Your task to perform on an android device: turn on the 12-hour format for clock Image 0: 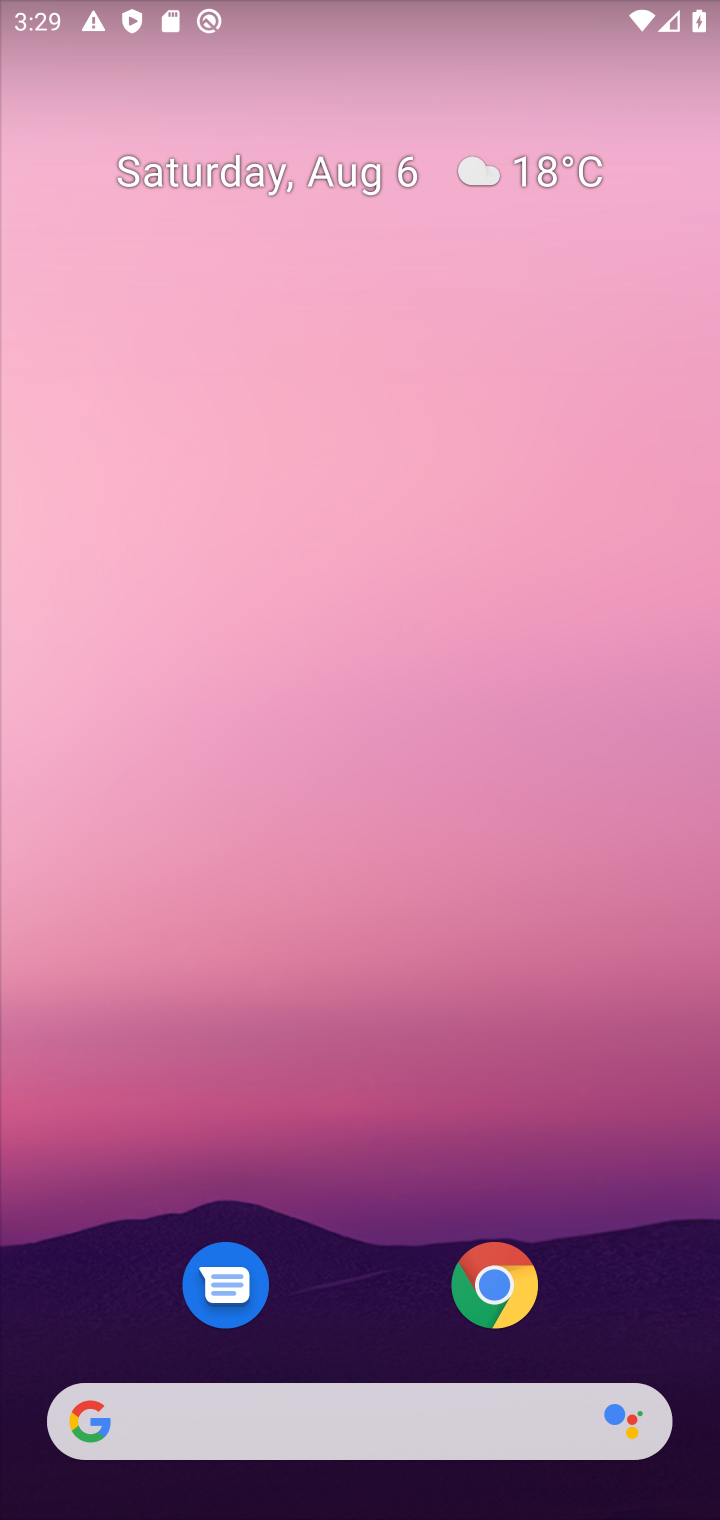
Step 0: press home button
Your task to perform on an android device: turn on the 12-hour format for clock Image 1: 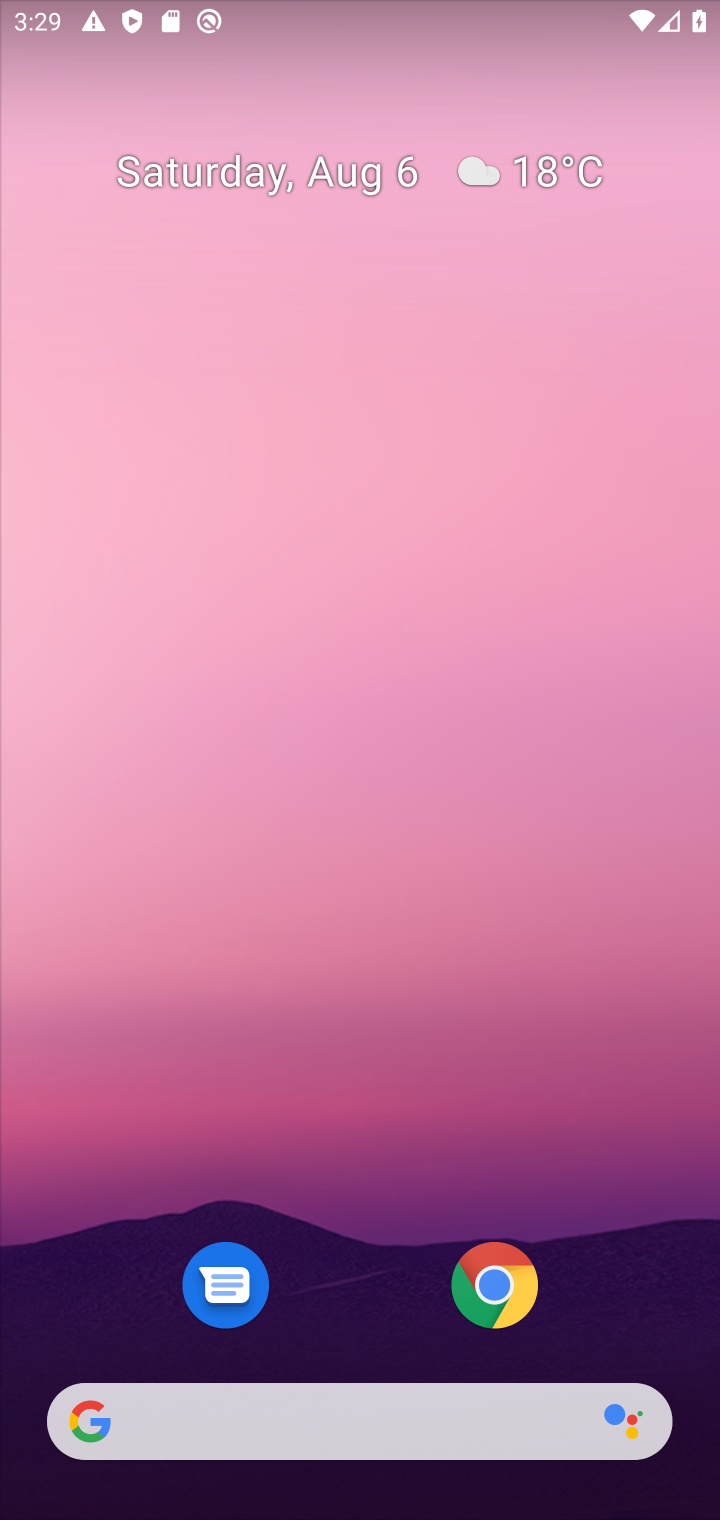
Step 1: drag from (359, 1322) to (373, 138)
Your task to perform on an android device: turn on the 12-hour format for clock Image 2: 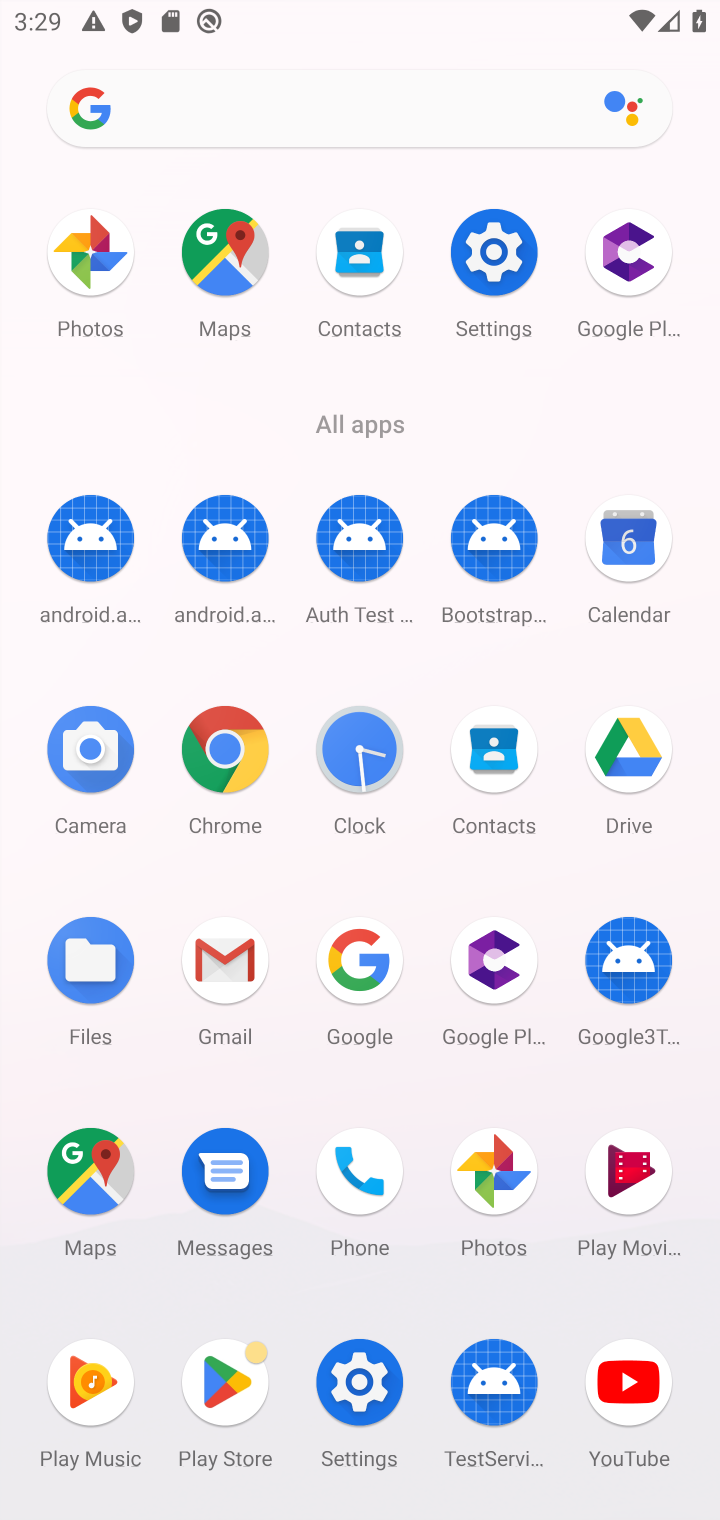
Step 2: click (350, 727)
Your task to perform on an android device: turn on the 12-hour format for clock Image 3: 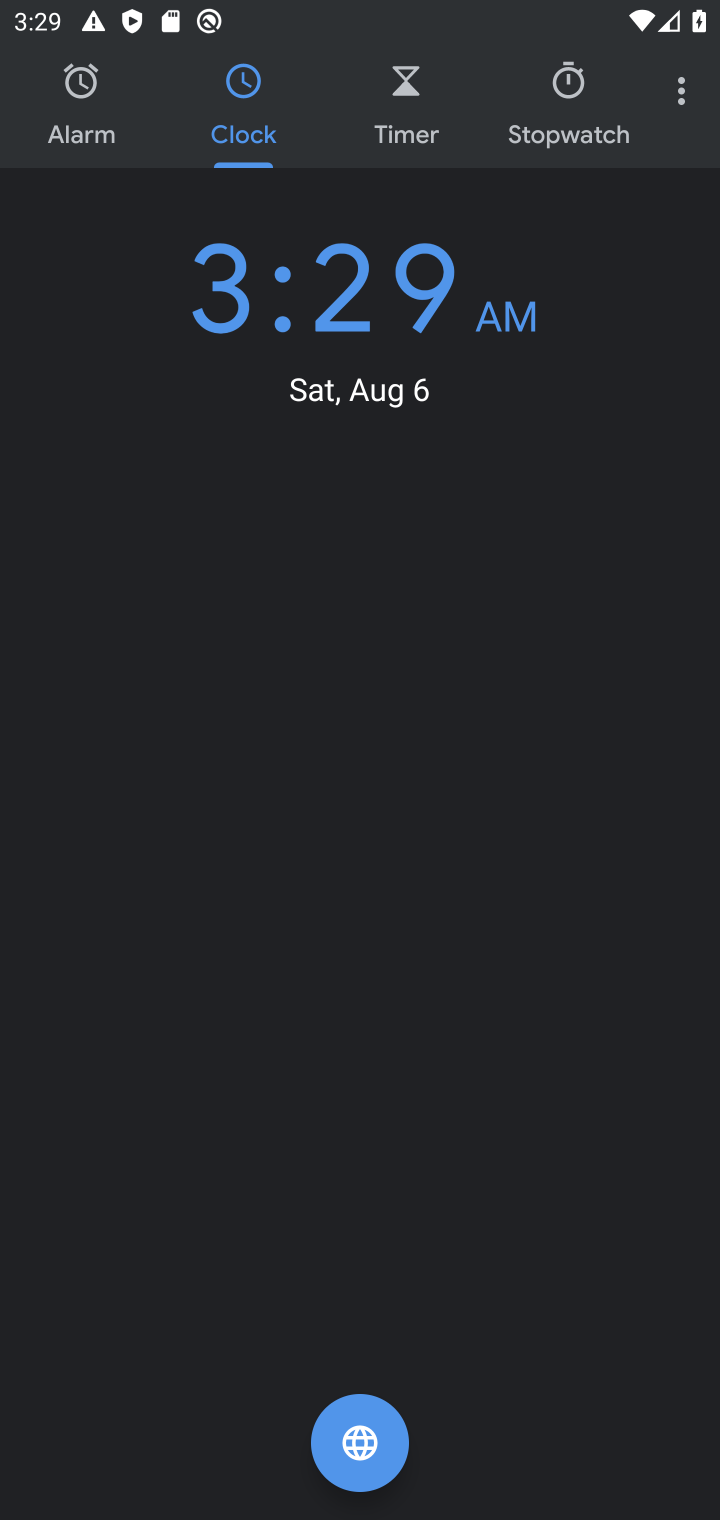
Step 3: click (680, 89)
Your task to perform on an android device: turn on the 12-hour format for clock Image 4: 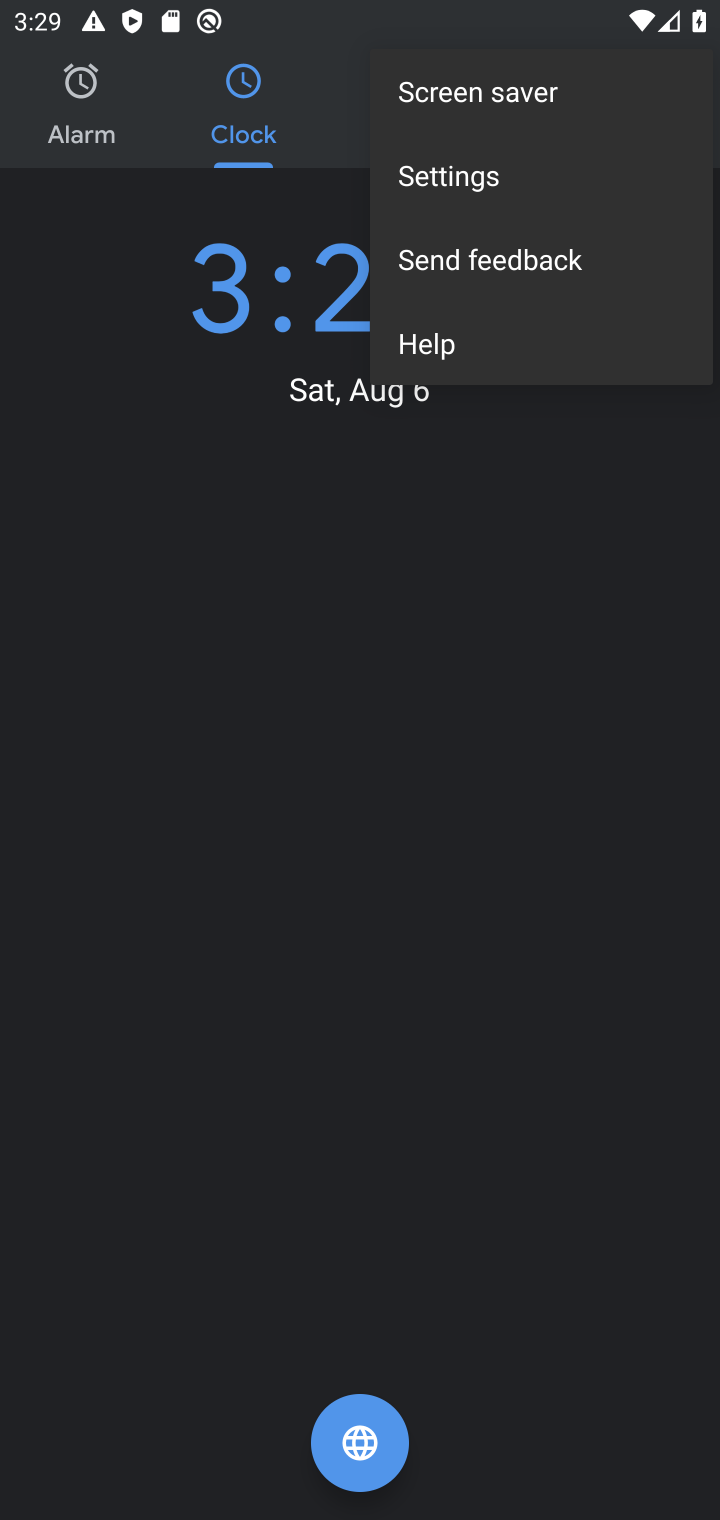
Step 4: click (515, 170)
Your task to perform on an android device: turn on the 12-hour format for clock Image 5: 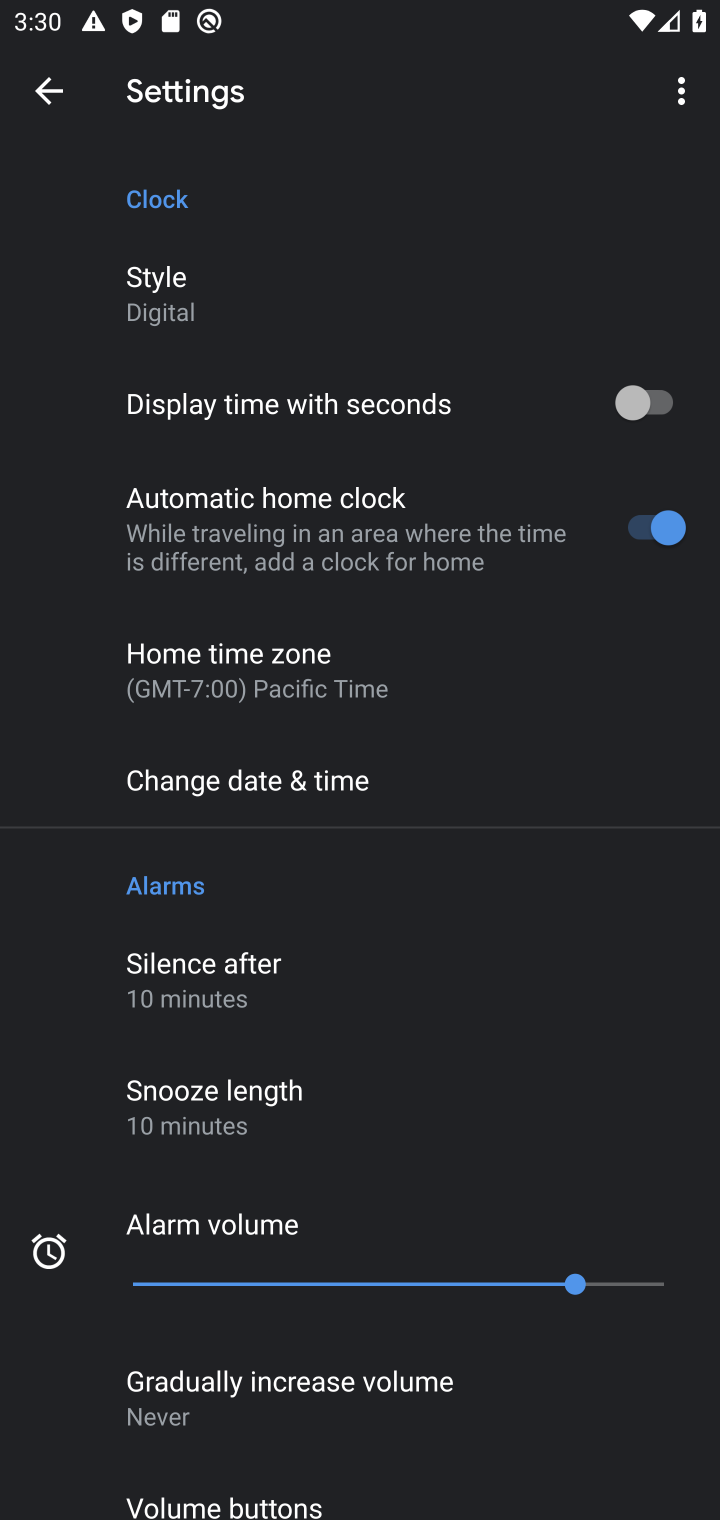
Step 5: click (382, 777)
Your task to perform on an android device: turn on the 12-hour format for clock Image 6: 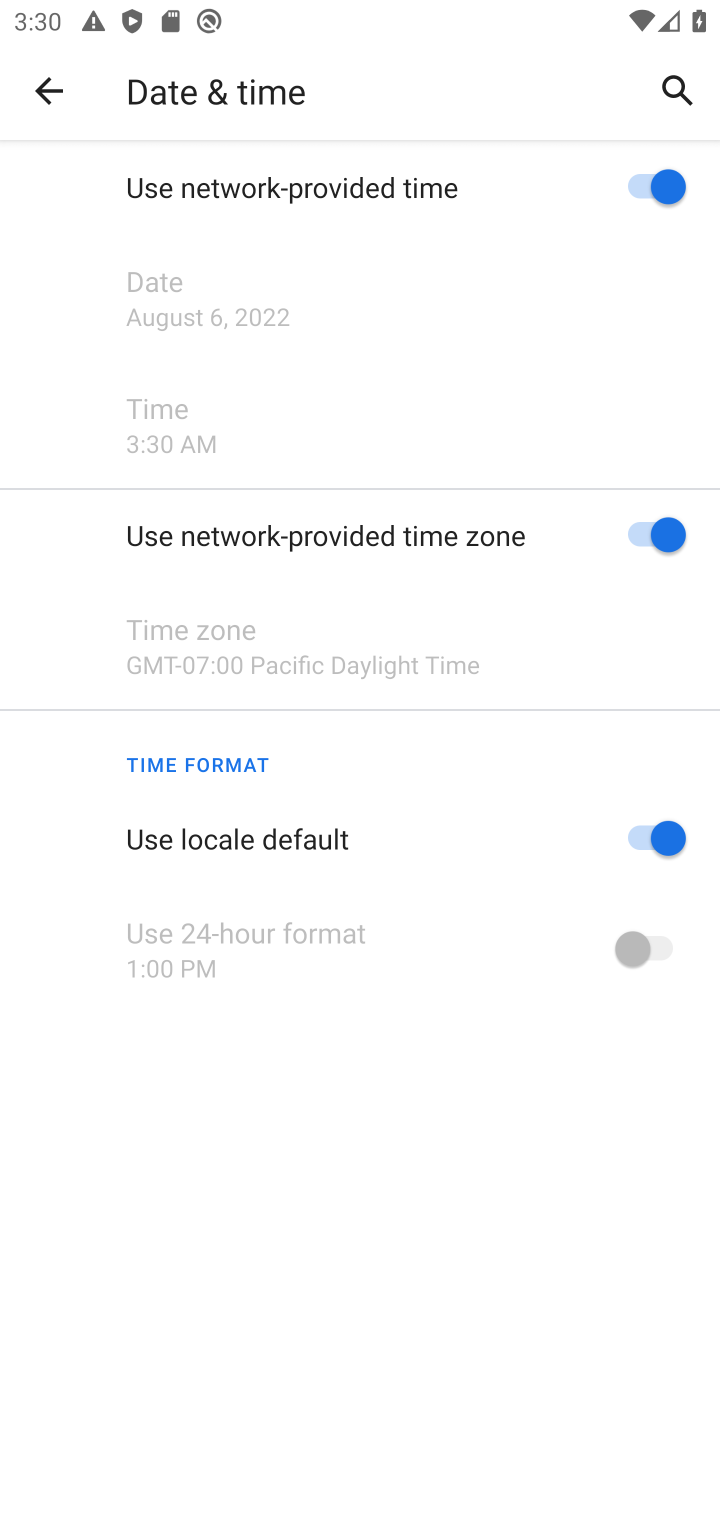
Step 6: task complete